Your task to perform on an android device: open app "File Manager" (install if not already installed) Image 0: 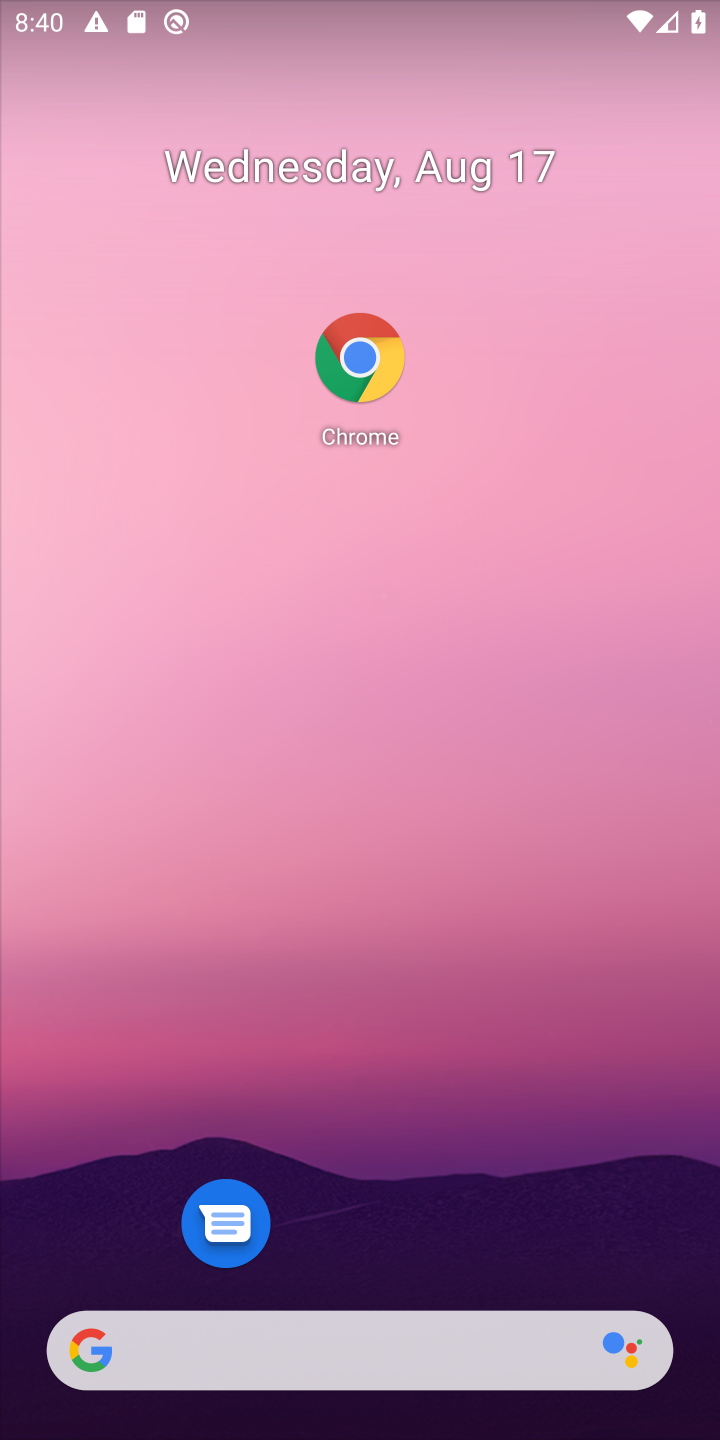
Step 0: drag from (346, 940) to (290, 243)
Your task to perform on an android device: open app "File Manager" (install if not already installed) Image 1: 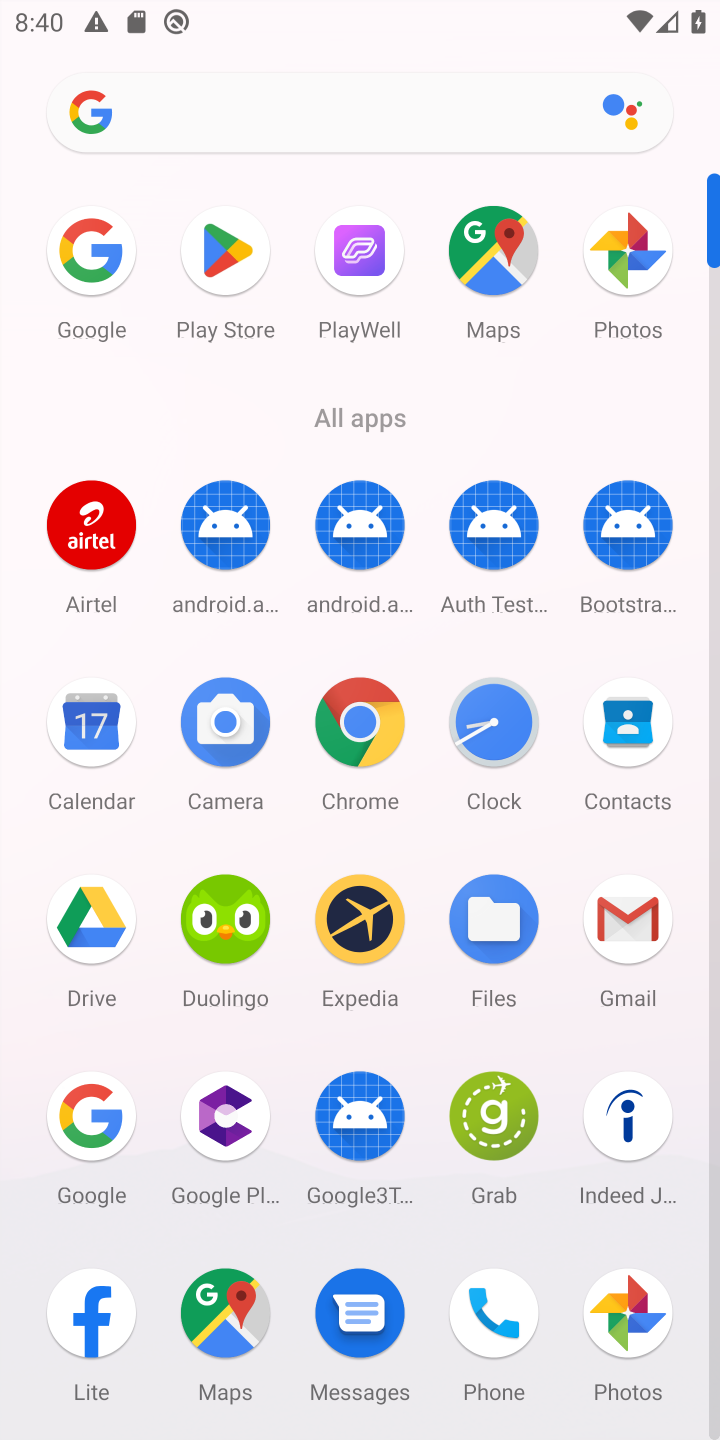
Step 1: click (209, 243)
Your task to perform on an android device: open app "File Manager" (install if not already installed) Image 2: 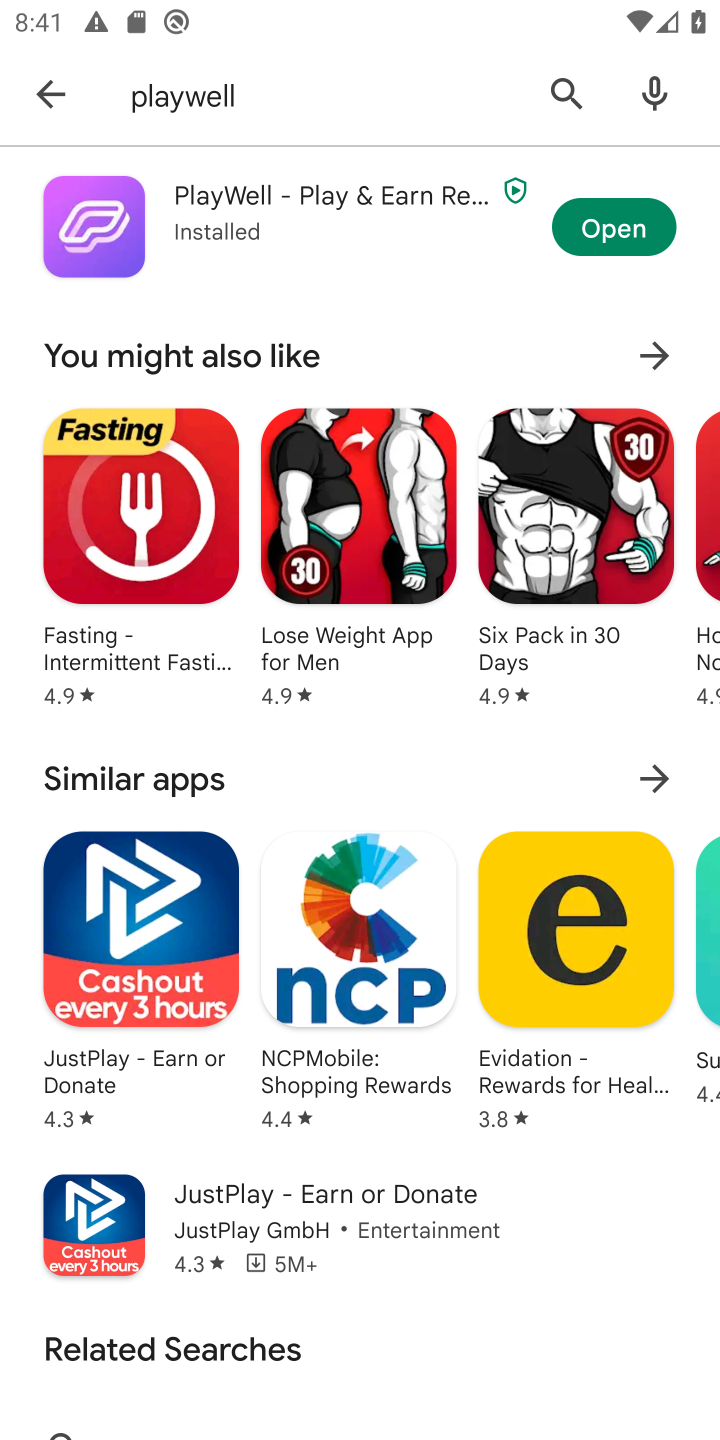
Step 2: click (558, 86)
Your task to perform on an android device: open app "File Manager" (install if not already installed) Image 3: 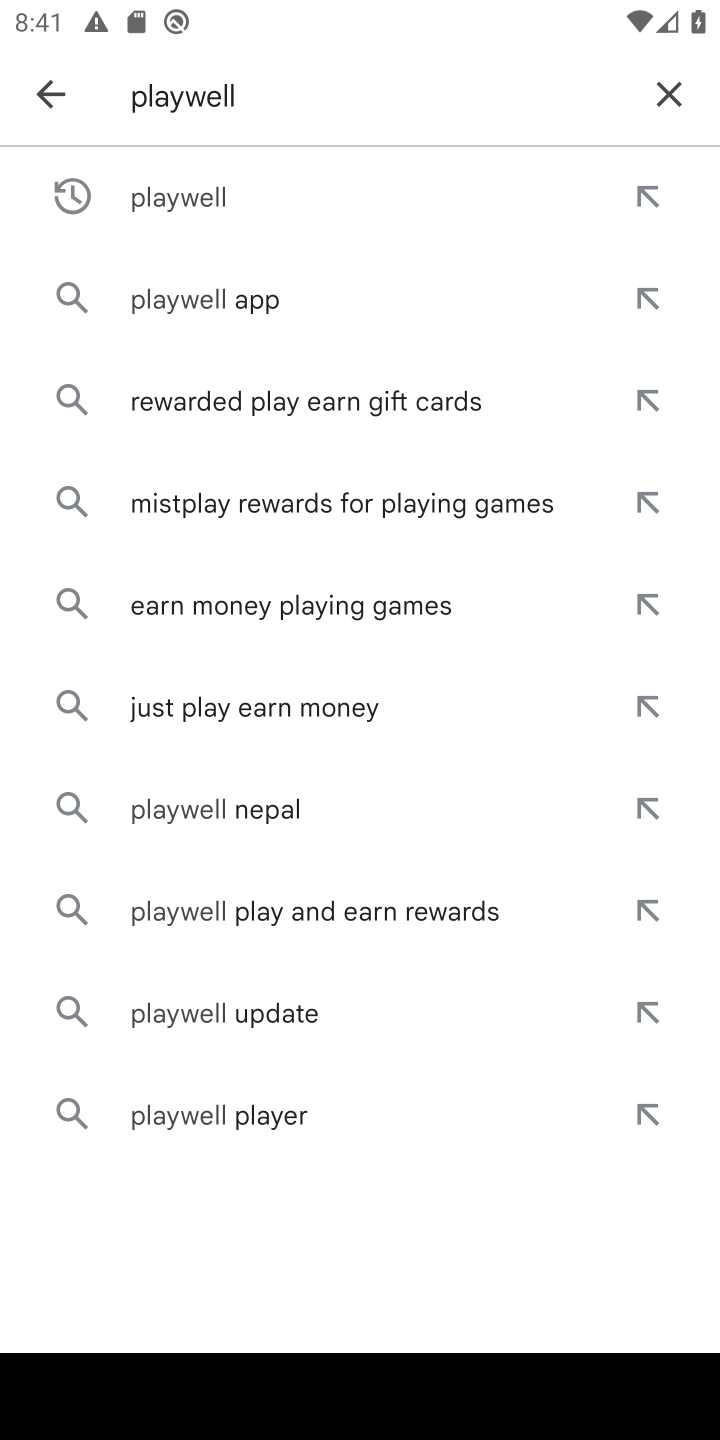
Step 3: click (674, 97)
Your task to perform on an android device: open app "File Manager" (install if not already installed) Image 4: 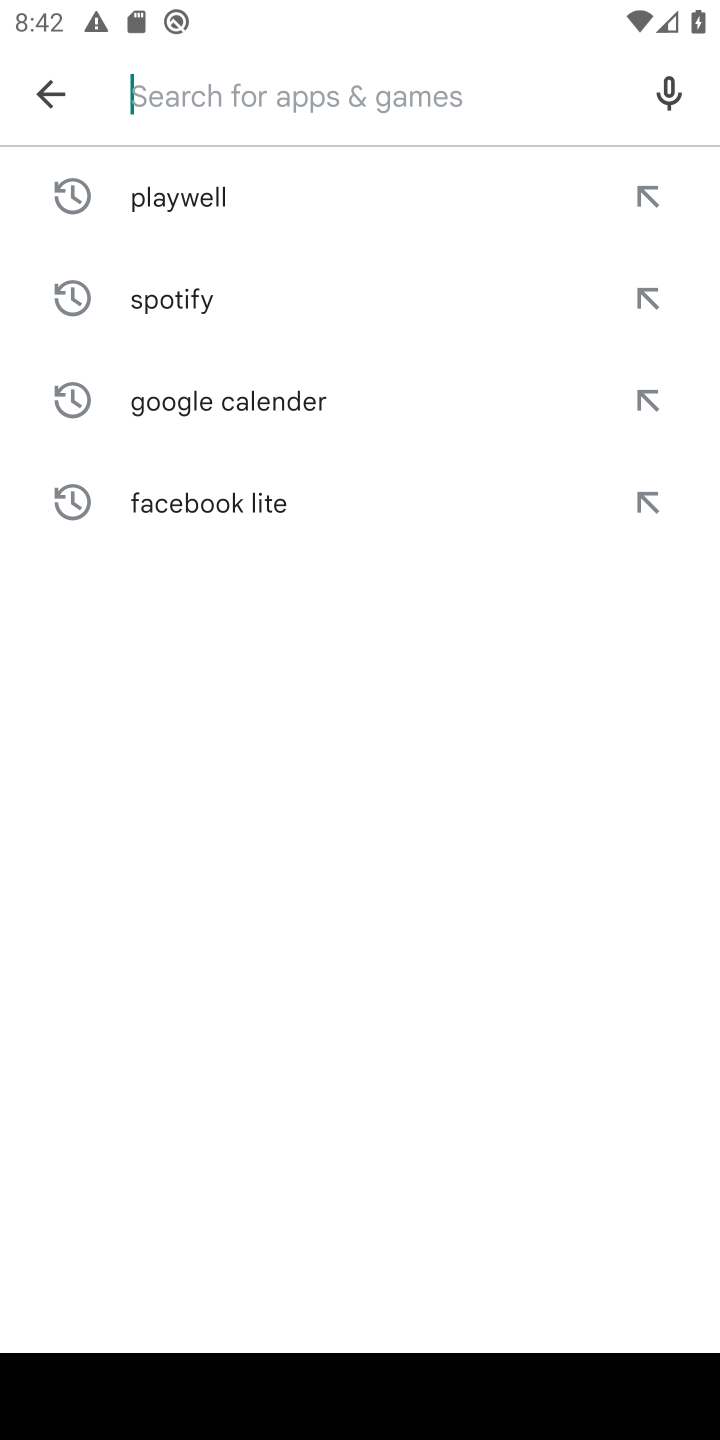
Step 4: type "File Manager"
Your task to perform on an android device: open app "File Manager" (install if not already installed) Image 5: 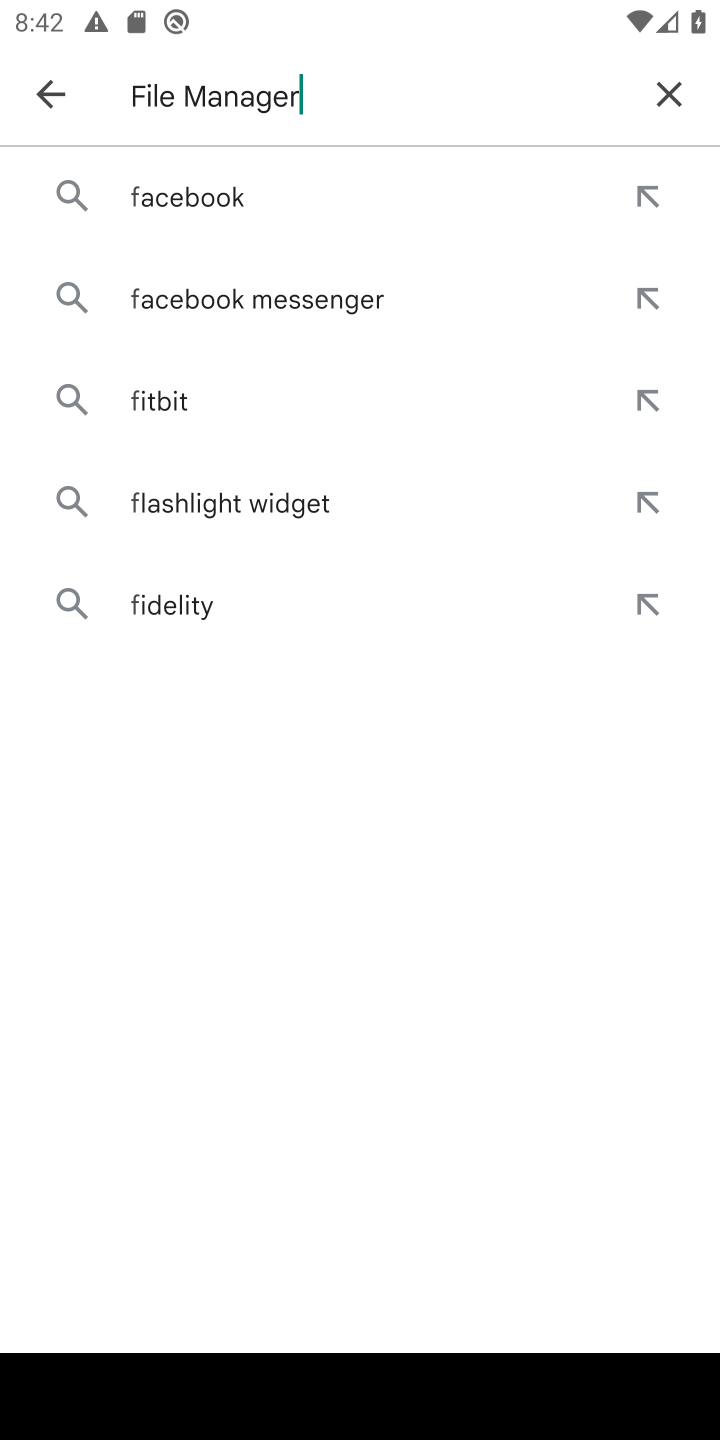
Step 5: type ""
Your task to perform on an android device: open app "File Manager" (install if not already installed) Image 6: 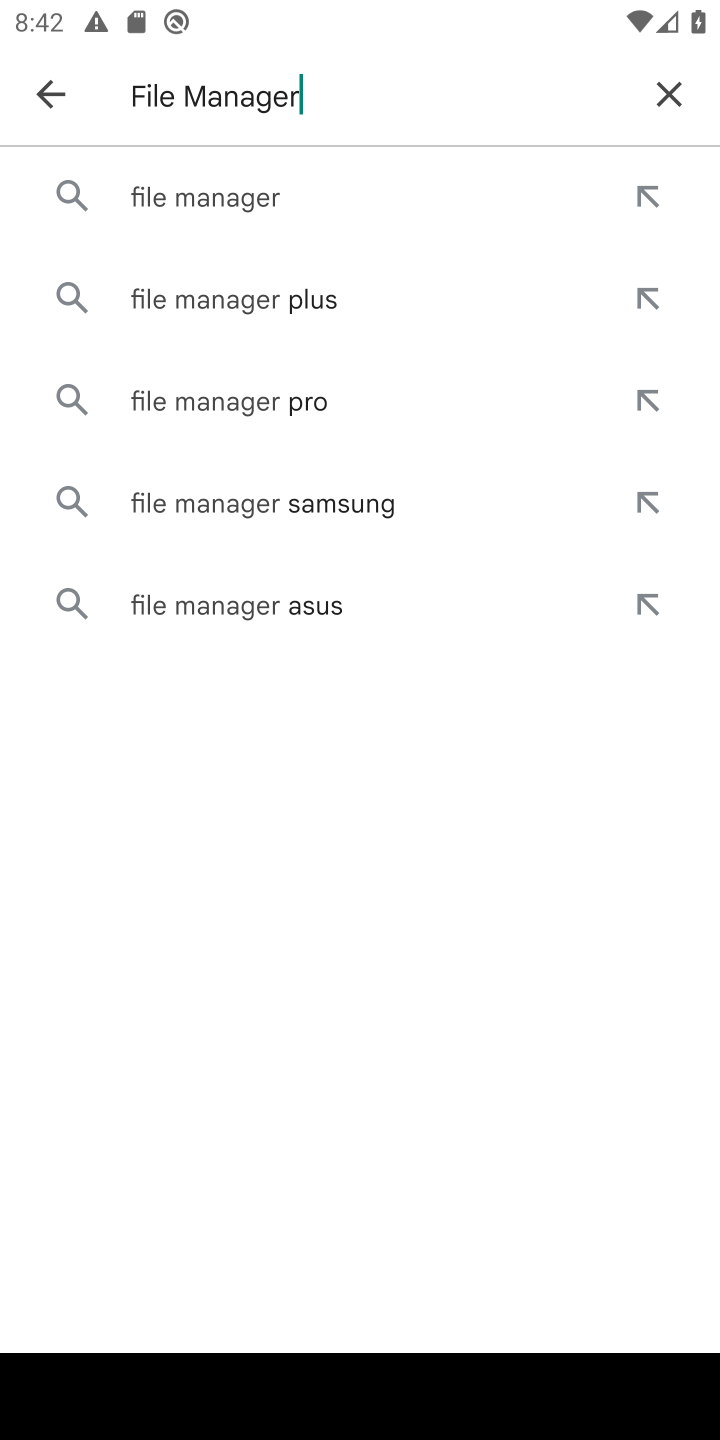
Step 6: click (251, 189)
Your task to perform on an android device: open app "File Manager" (install if not already installed) Image 7: 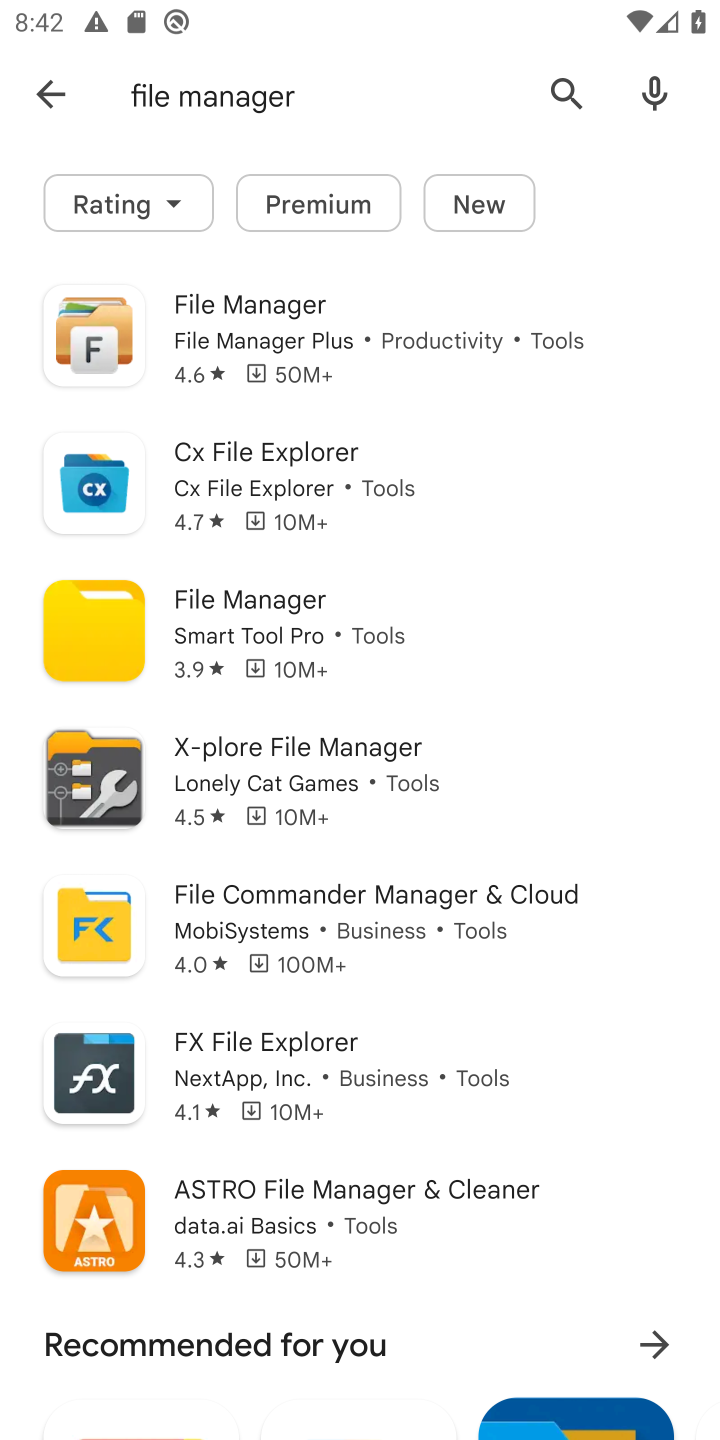
Step 7: click (242, 295)
Your task to perform on an android device: open app "File Manager" (install if not already installed) Image 8: 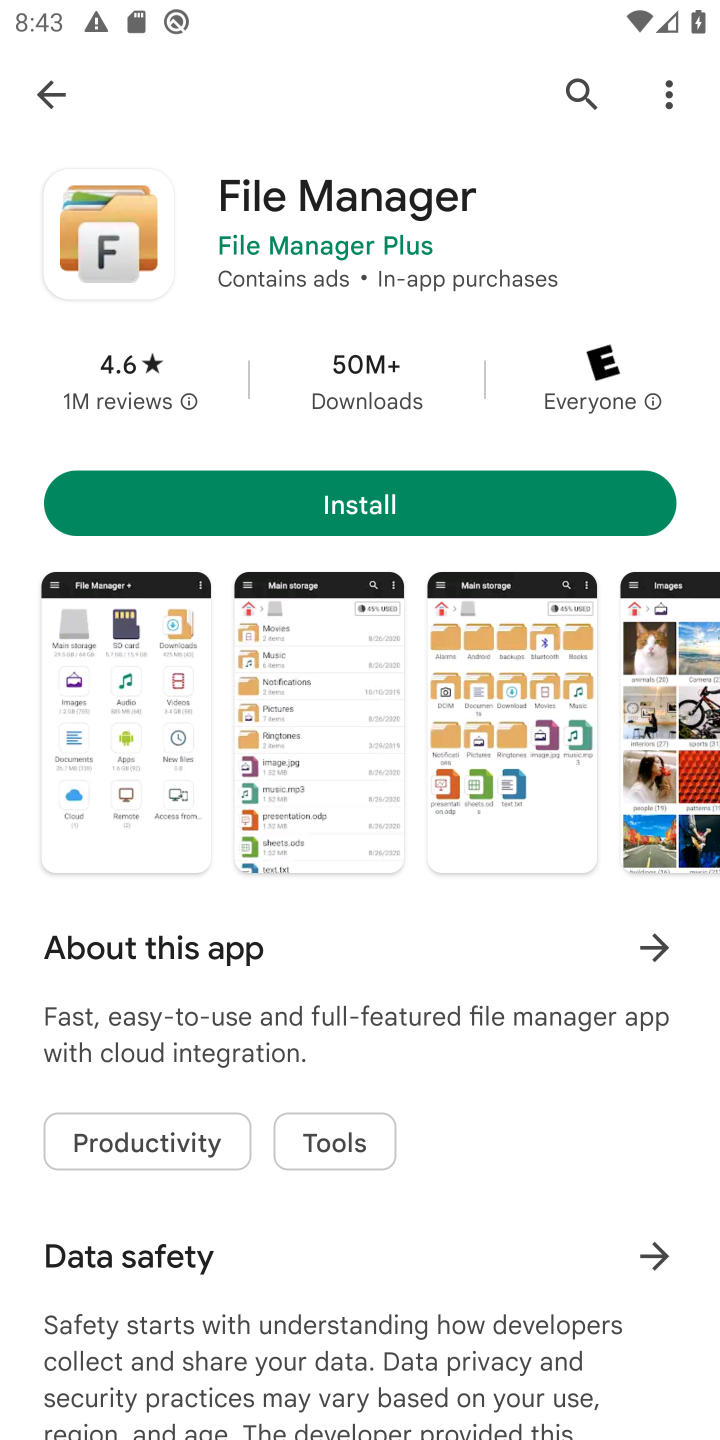
Step 8: click (352, 511)
Your task to perform on an android device: open app "File Manager" (install if not already installed) Image 9: 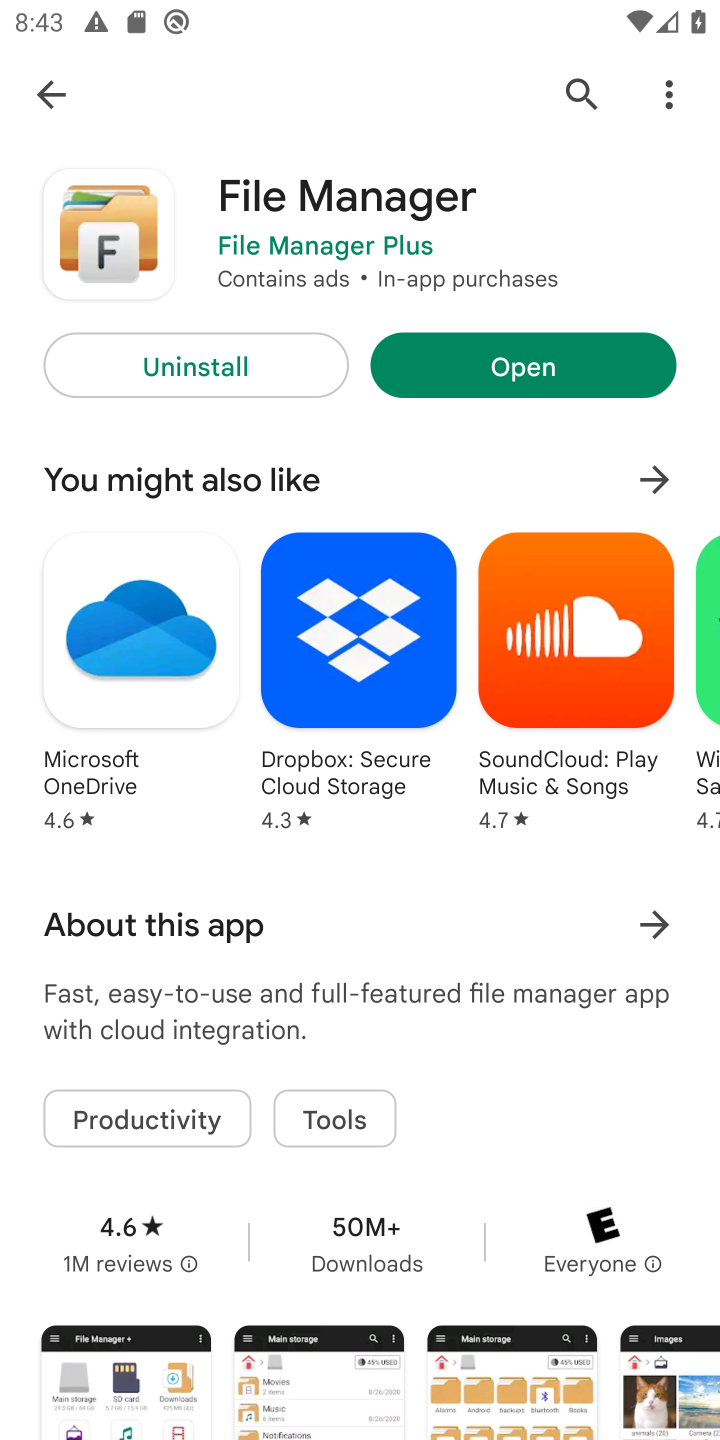
Step 9: click (521, 371)
Your task to perform on an android device: open app "File Manager" (install if not already installed) Image 10: 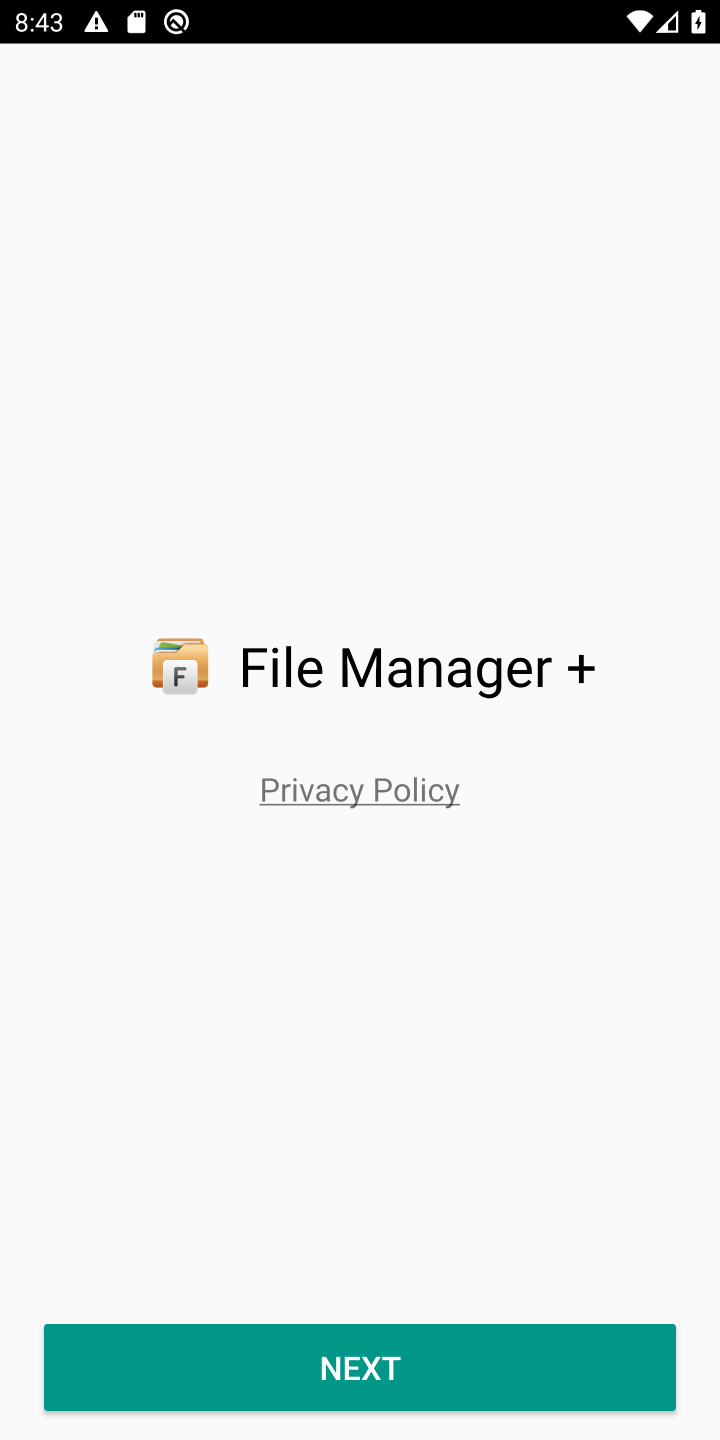
Step 10: task complete